Your task to perform on an android device: delete a single message in the gmail app Image 0: 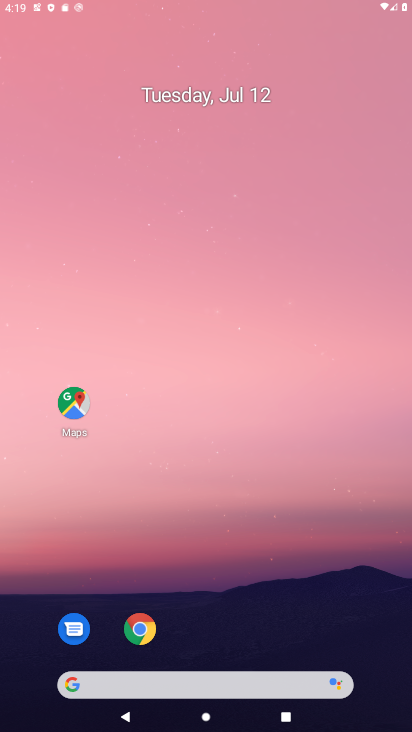
Step 0: press home button
Your task to perform on an android device: delete a single message in the gmail app Image 1: 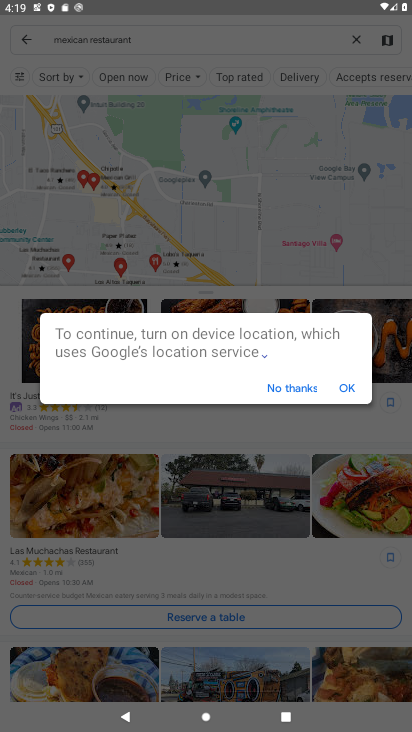
Step 1: press home button
Your task to perform on an android device: delete a single message in the gmail app Image 2: 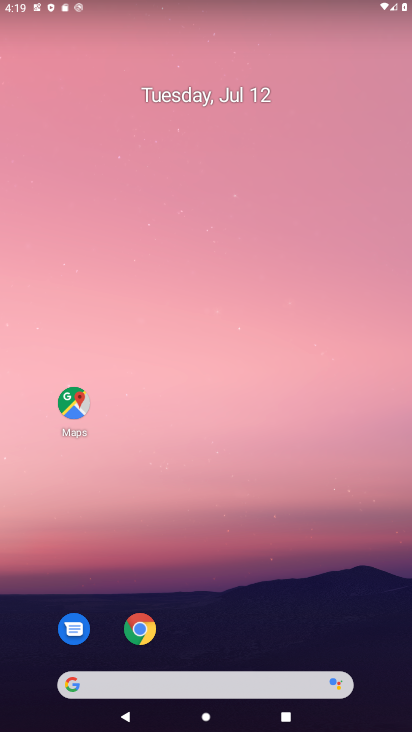
Step 2: drag from (203, 650) to (242, 198)
Your task to perform on an android device: delete a single message in the gmail app Image 3: 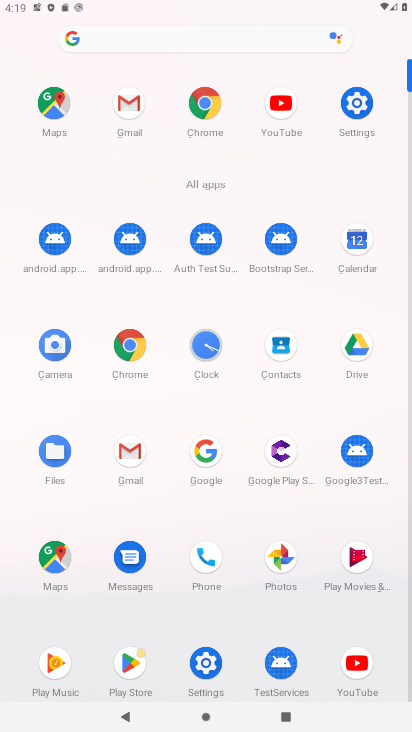
Step 3: click (132, 107)
Your task to perform on an android device: delete a single message in the gmail app Image 4: 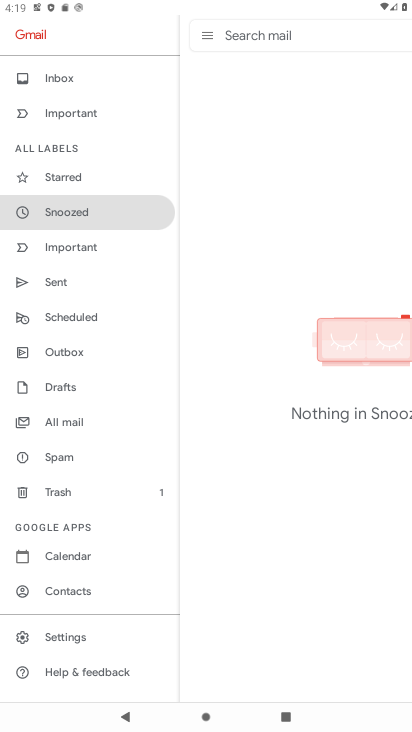
Step 4: click (59, 421)
Your task to perform on an android device: delete a single message in the gmail app Image 5: 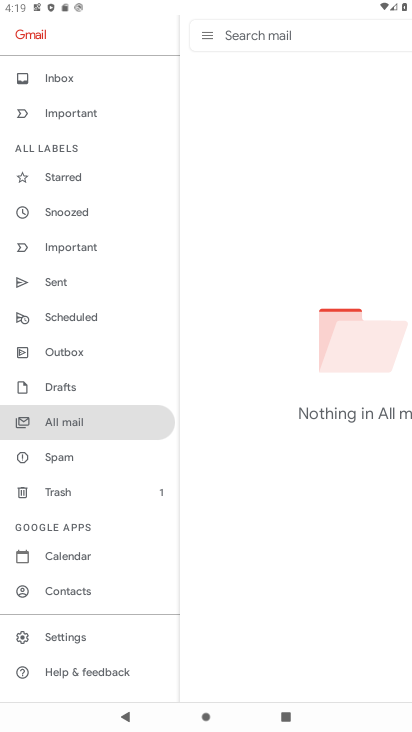
Step 5: task complete